Your task to perform on an android device: Open Android settings Image 0: 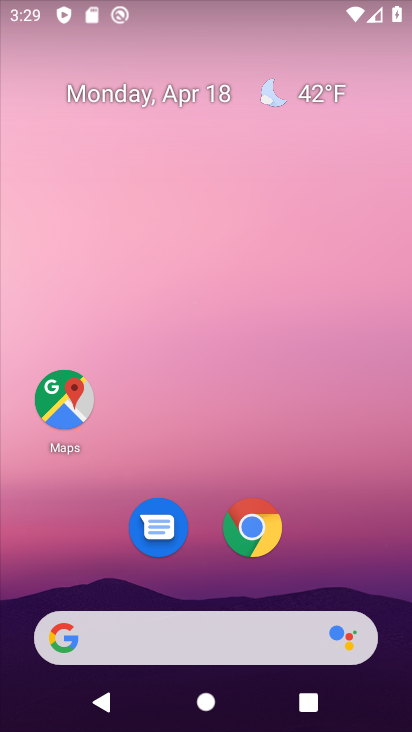
Step 0: drag from (394, 623) to (319, 178)
Your task to perform on an android device: Open Android settings Image 1: 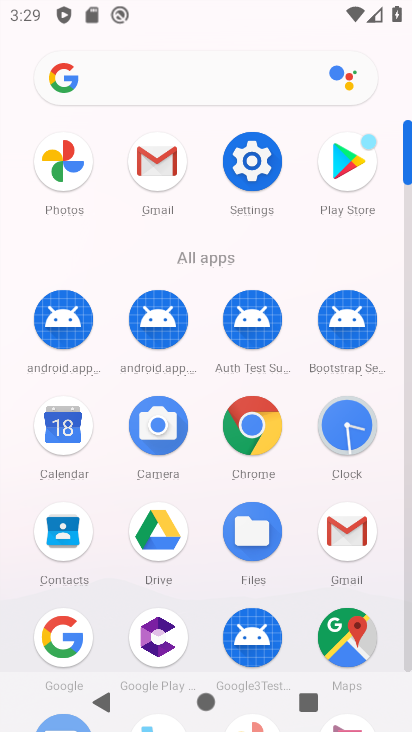
Step 1: click (407, 660)
Your task to perform on an android device: Open Android settings Image 2: 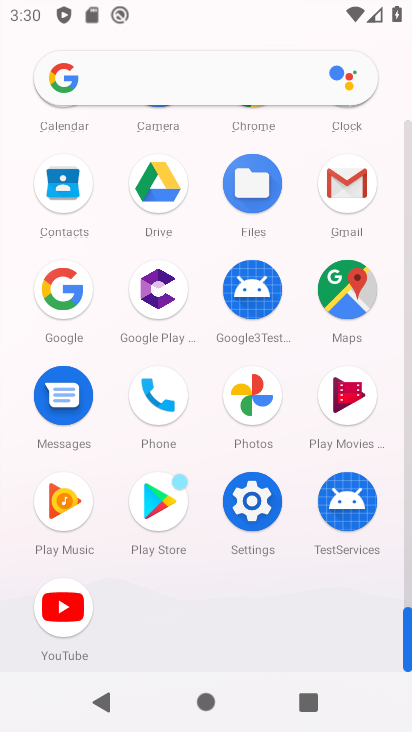
Step 2: click (251, 498)
Your task to perform on an android device: Open Android settings Image 3: 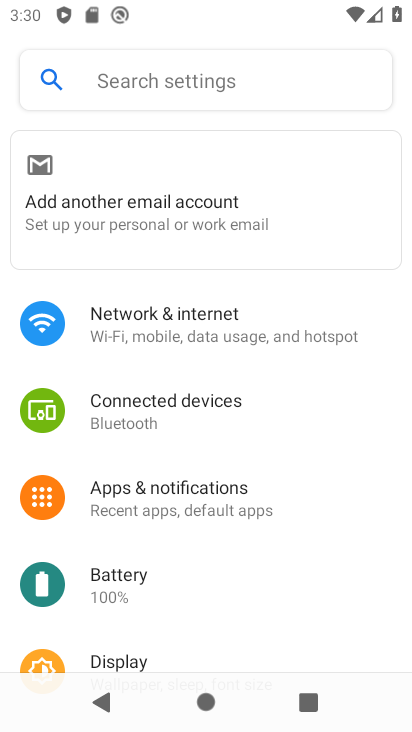
Step 3: drag from (322, 614) to (357, 289)
Your task to perform on an android device: Open Android settings Image 4: 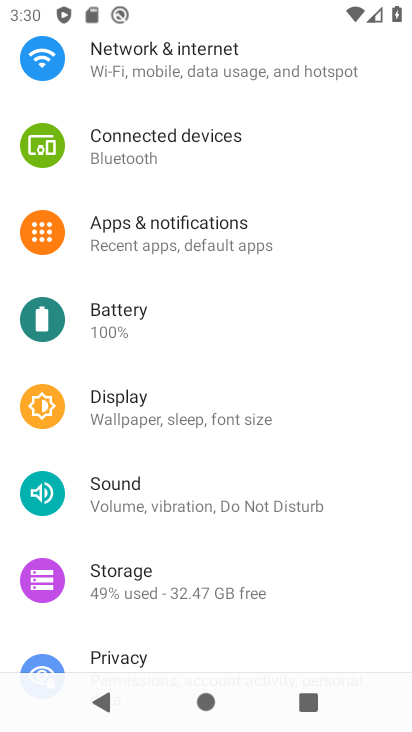
Step 4: drag from (332, 558) to (362, 214)
Your task to perform on an android device: Open Android settings Image 5: 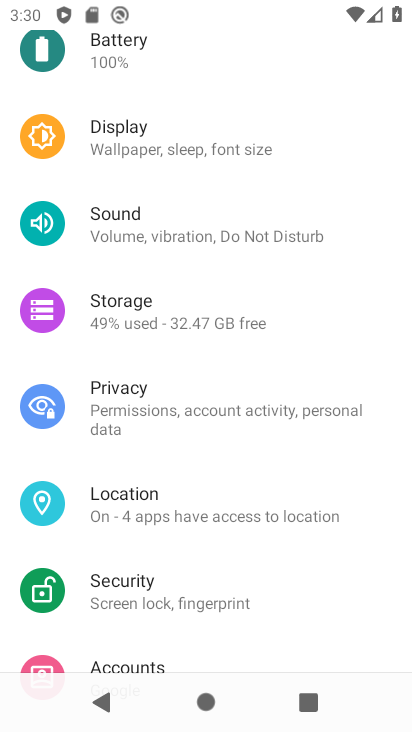
Step 5: drag from (341, 582) to (358, 247)
Your task to perform on an android device: Open Android settings Image 6: 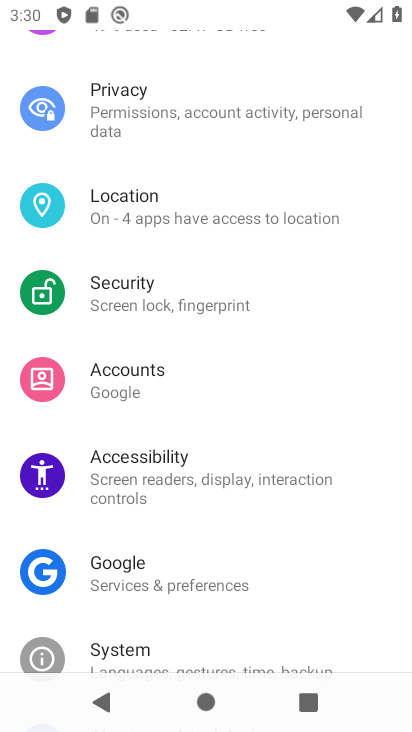
Step 6: drag from (329, 619) to (329, 138)
Your task to perform on an android device: Open Android settings Image 7: 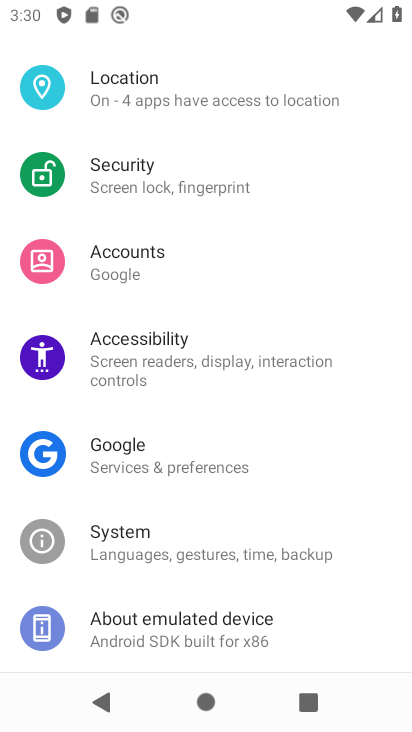
Step 7: click (141, 624)
Your task to perform on an android device: Open Android settings Image 8: 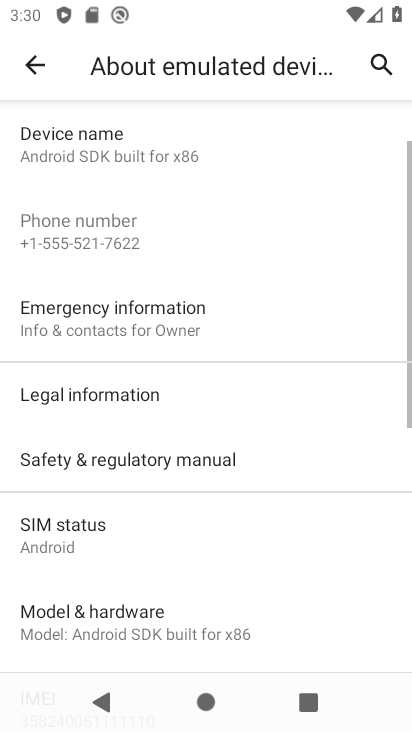
Step 8: task complete